Your task to perform on an android device: Open maps Image 0: 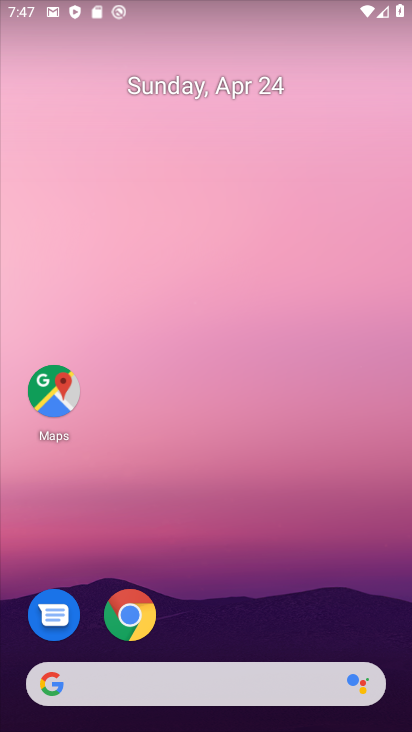
Step 0: click (321, 4)
Your task to perform on an android device: Open maps Image 1: 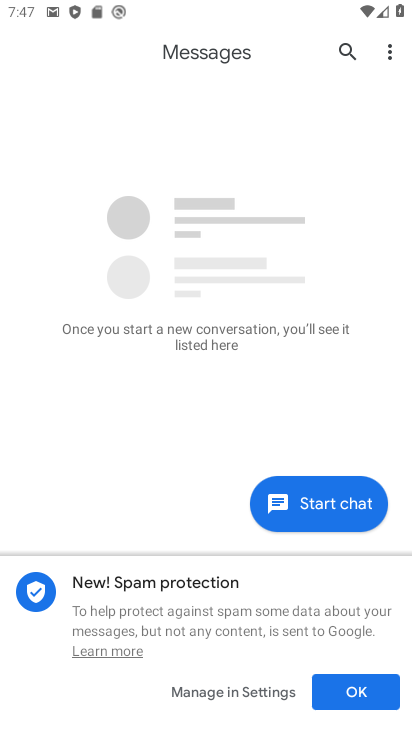
Step 1: press home button
Your task to perform on an android device: Open maps Image 2: 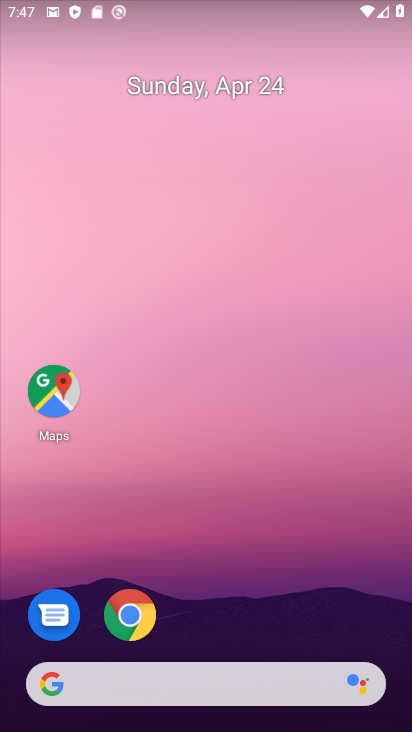
Step 2: click (70, 383)
Your task to perform on an android device: Open maps Image 3: 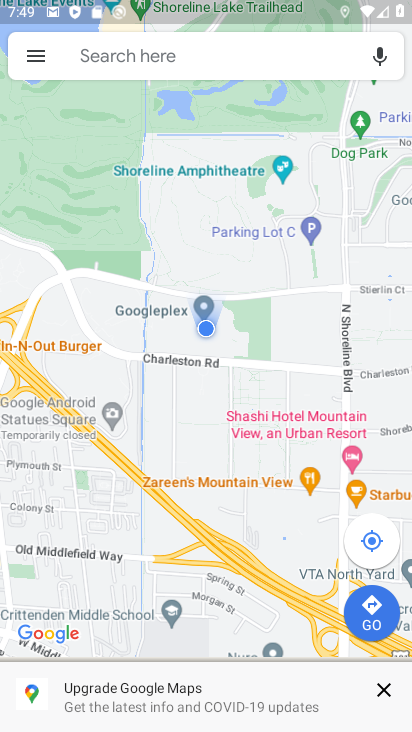
Step 3: task complete